Your task to perform on an android device: Open notification settings Image 0: 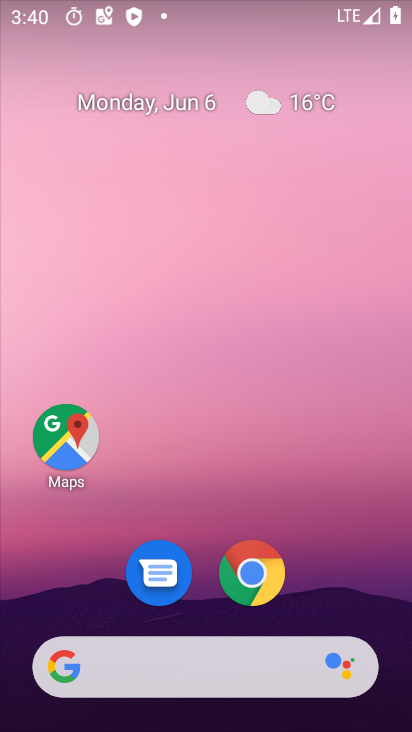
Step 0: drag from (354, 588) to (373, 266)
Your task to perform on an android device: Open notification settings Image 1: 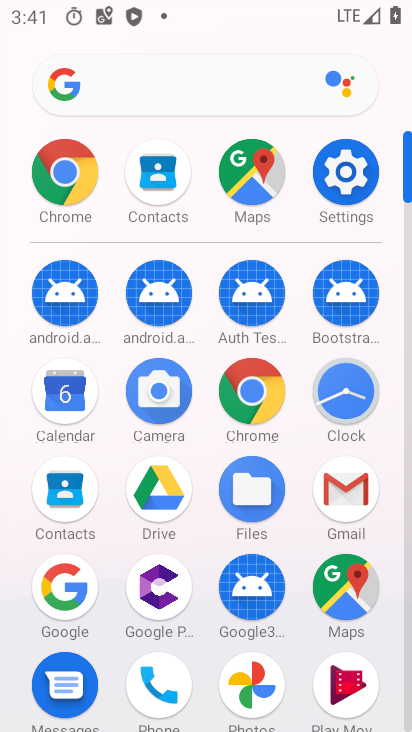
Step 1: click (347, 179)
Your task to perform on an android device: Open notification settings Image 2: 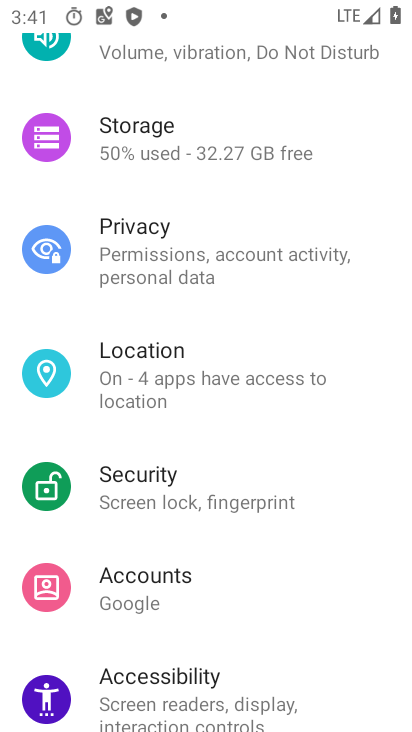
Step 2: drag from (380, 221) to (381, 333)
Your task to perform on an android device: Open notification settings Image 3: 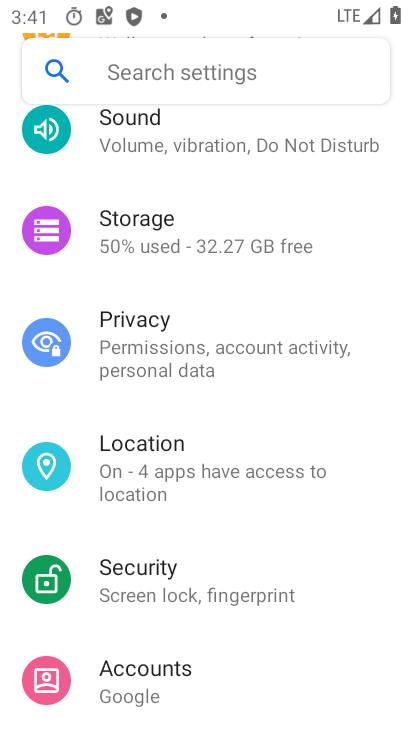
Step 3: drag from (370, 220) to (379, 352)
Your task to perform on an android device: Open notification settings Image 4: 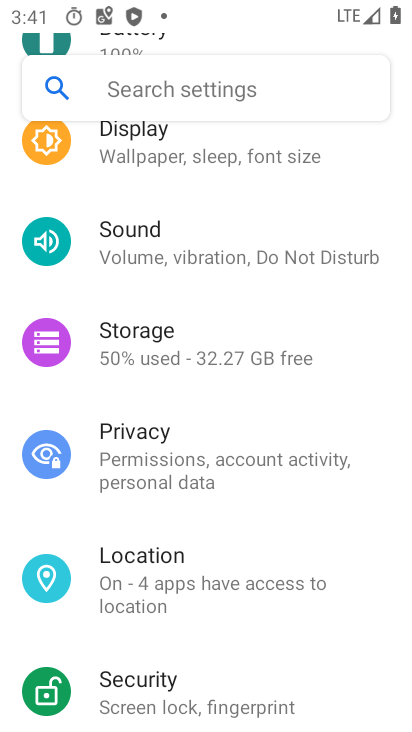
Step 4: drag from (377, 171) to (372, 330)
Your task to perform on an android device: Open notification settings Image 5: 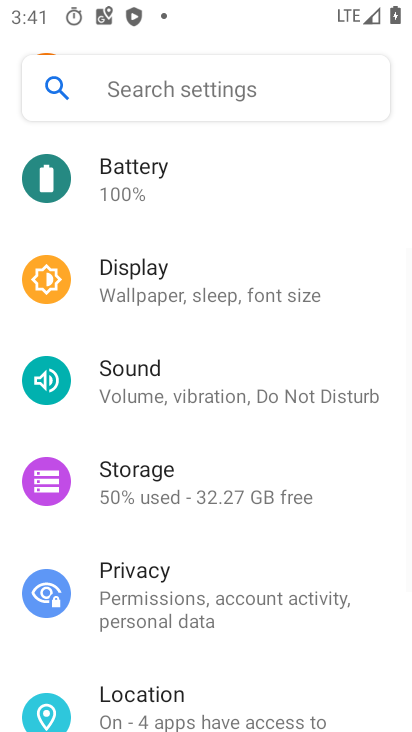
Step 5: drag from (359, 182) to (359, 344)
Your task to perform on an android device: Open notification settings Image 6: 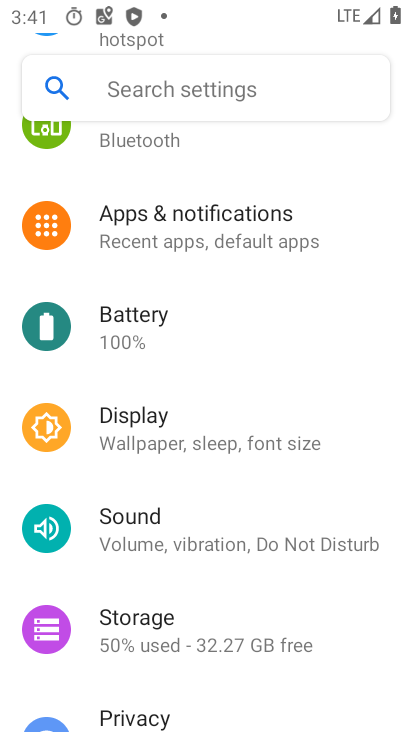
Step 6: click (318, 237)
Your task to perform on an android device: Open notification settings Image 7: 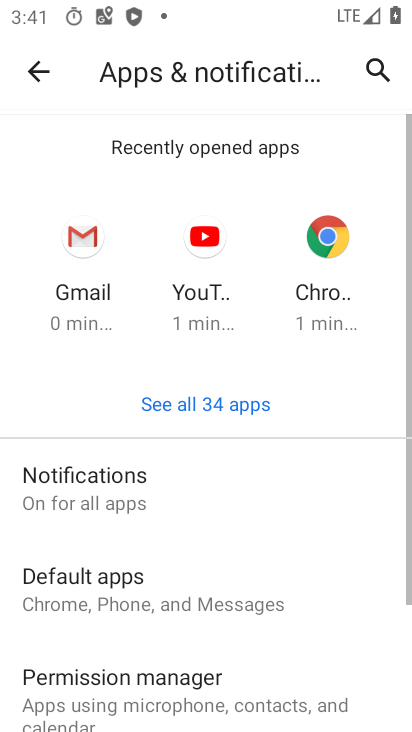
Step 7: click (237, 508)
Your task to perform on an android device: Open notification settings Image 8: 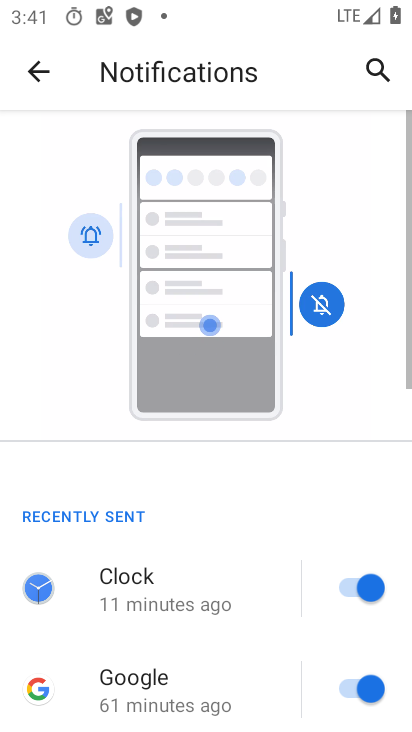
Step 8: task complete